Your task to perform on an android device: Open Google Chrome Image 0: 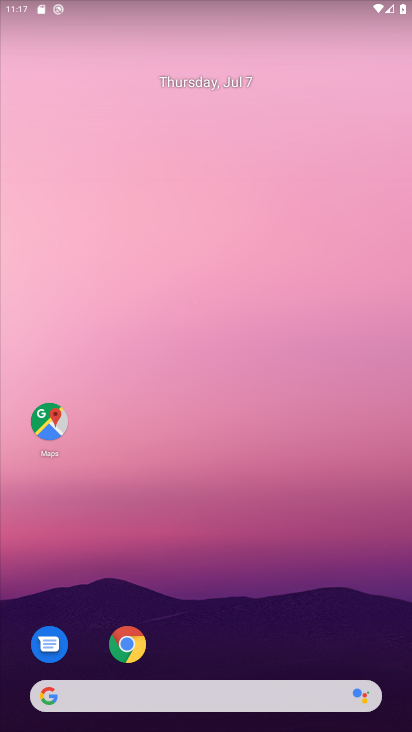
Step 0: click (122, 640)
Your task to perform on an android device: Open Google Chrome Image 1: 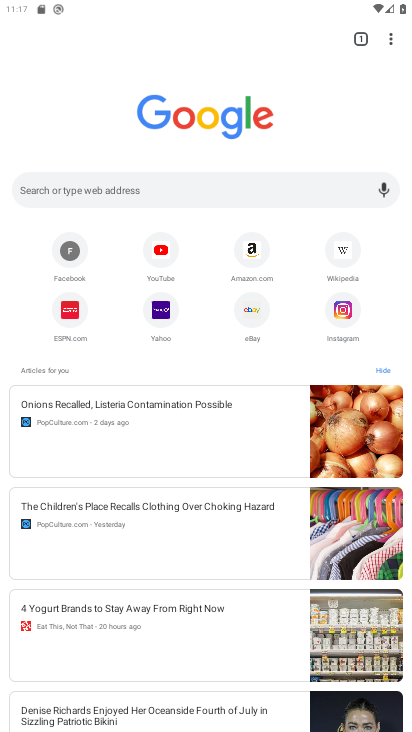
Step 1: task complete